Your task to perform on an android device: check google app version Image 0: 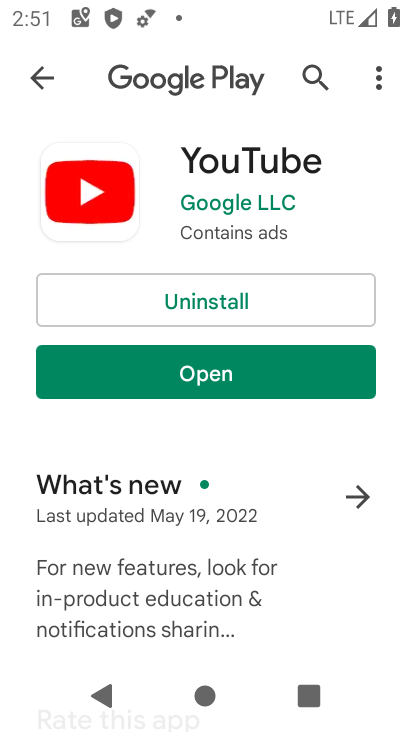
Step 0: press home button
Your task to perform on an android device: check google app version Image 1: 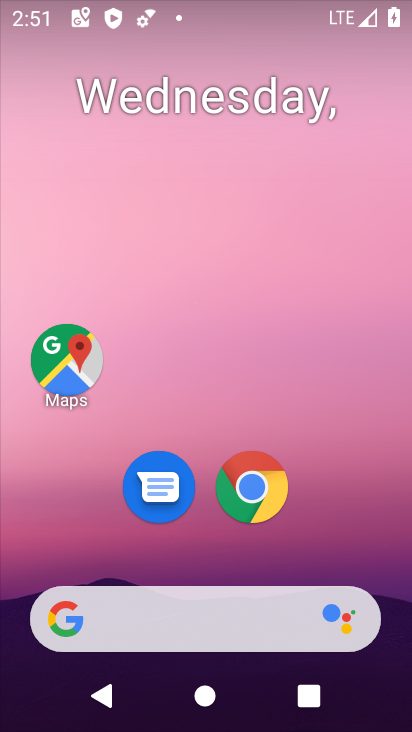
Step 1: click (239, 620)
Your task to perform on an android device: check google app version Image 2: 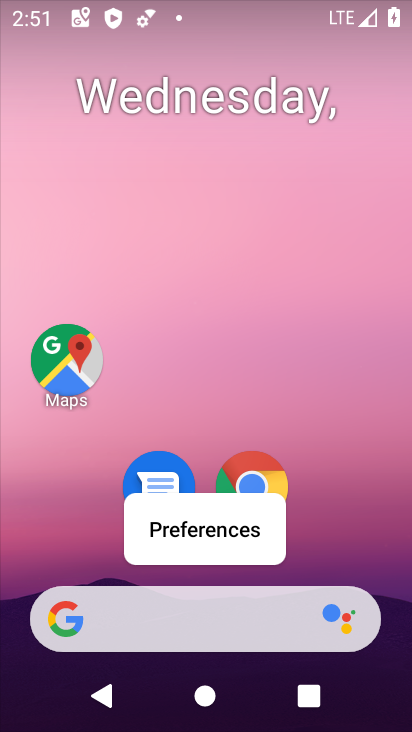
Step 2: click (199, 640)
Your task to perform on an android device: check google app version Image 3: 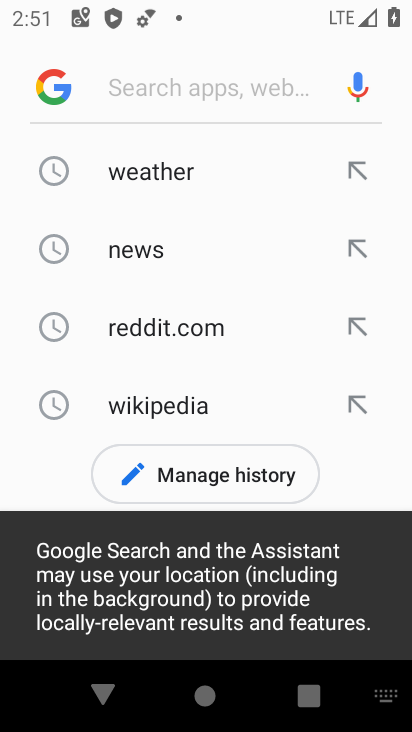
Step 3: click (55, 94)
Your task to perform on an android device: check google app version Image 4: 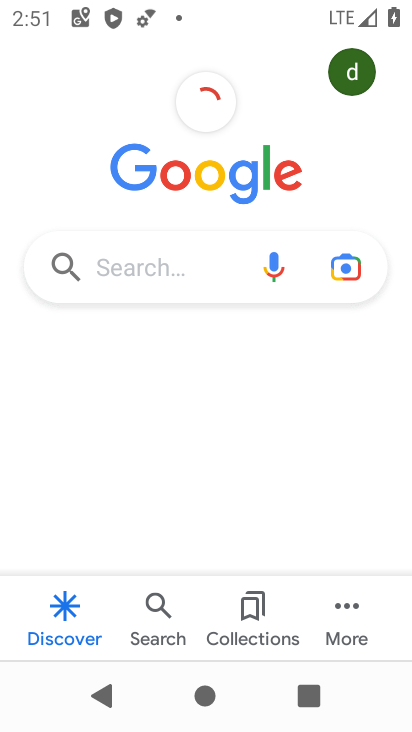
Step 4: click (341, 606)
Your task to perform on an android device: check google app version Image 5: 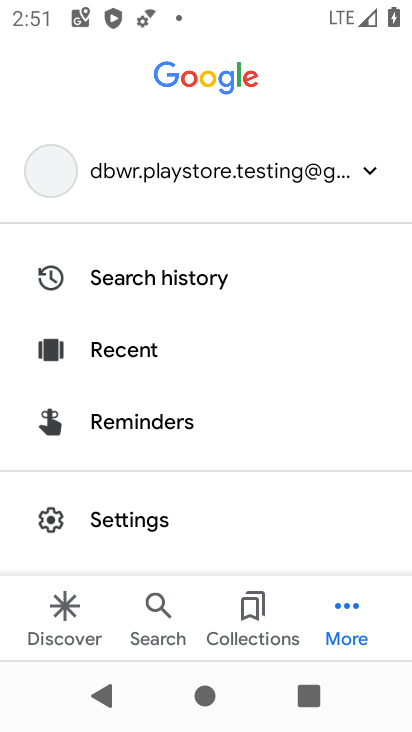
Step 5: click (247, 533)
Your task to perform on an android device: check google app version Image 6: 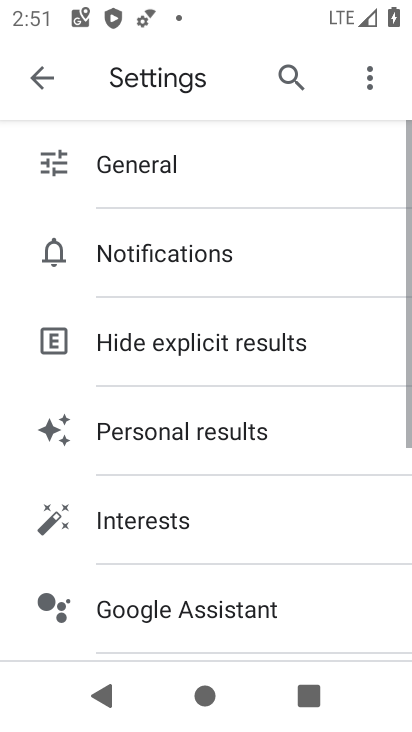
Step 6: drag from (247, 533) to (243, 172)
Your task to perform on an android device: check google app version Image 7: 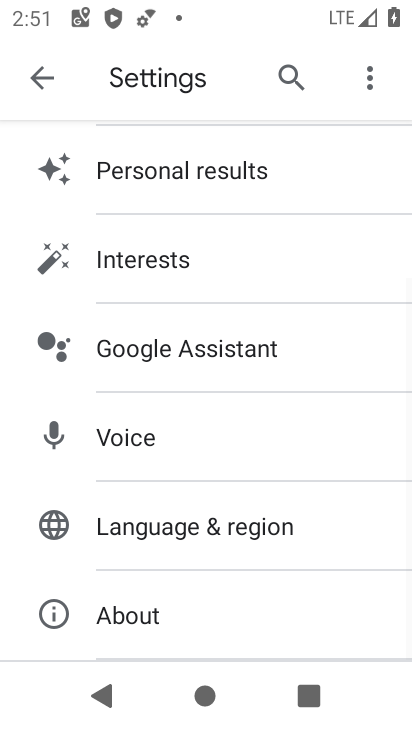
Step 7: click (154, 619)
Your task to perform on an android device: check google app version Image 8: 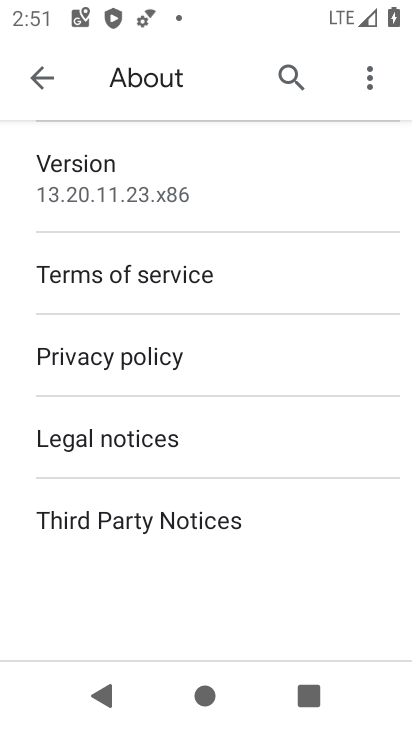
Step 8: task complete